Your task to perform on an android device: Open Google Image 0: 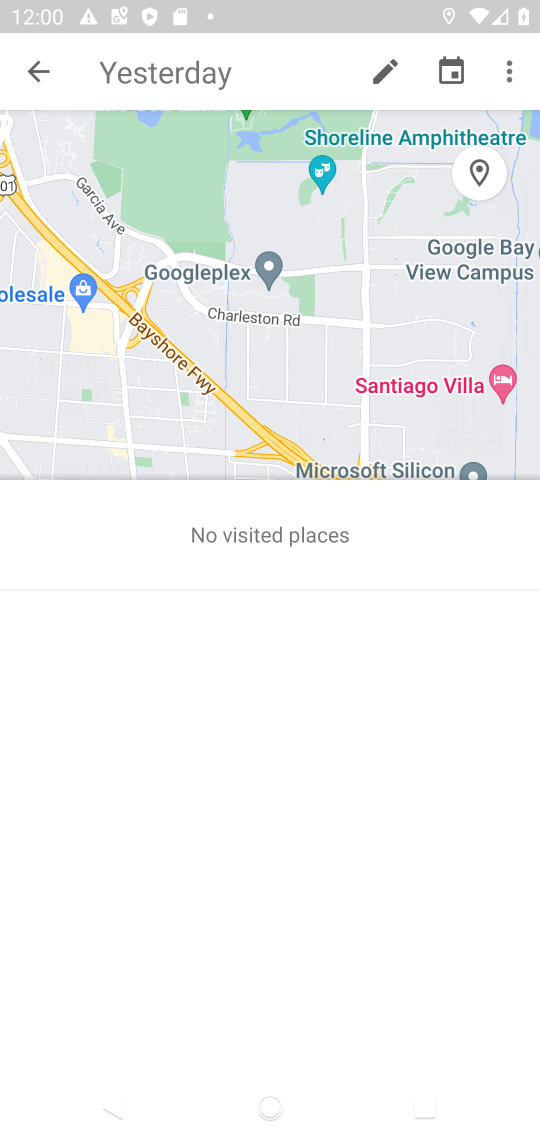
Step 0: press home button
Your task to perform on an android device: Open Google Image 1: 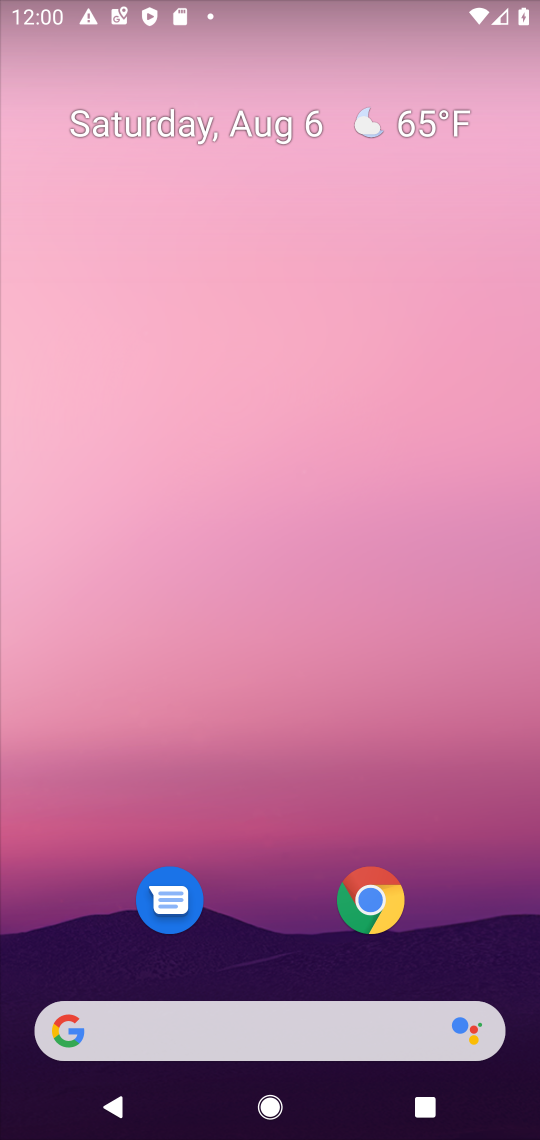
Step 1: drag from (267, 709) to (262, 188)
Your task to perform on an android device: Open Google Image 2: 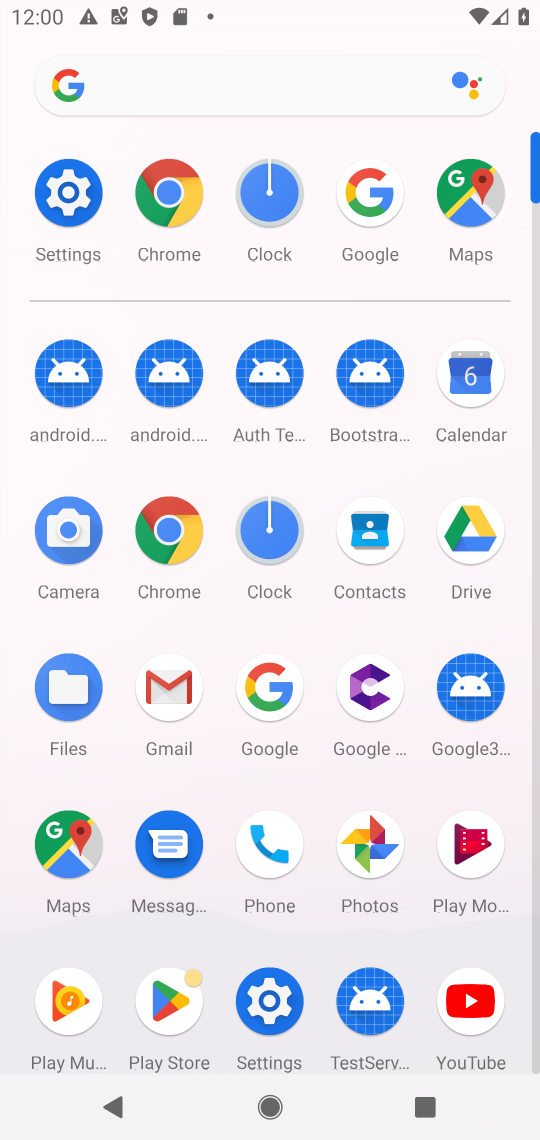
Step 2: click (267, 686)
Your task to perform on an android device: Open Google Image 3: 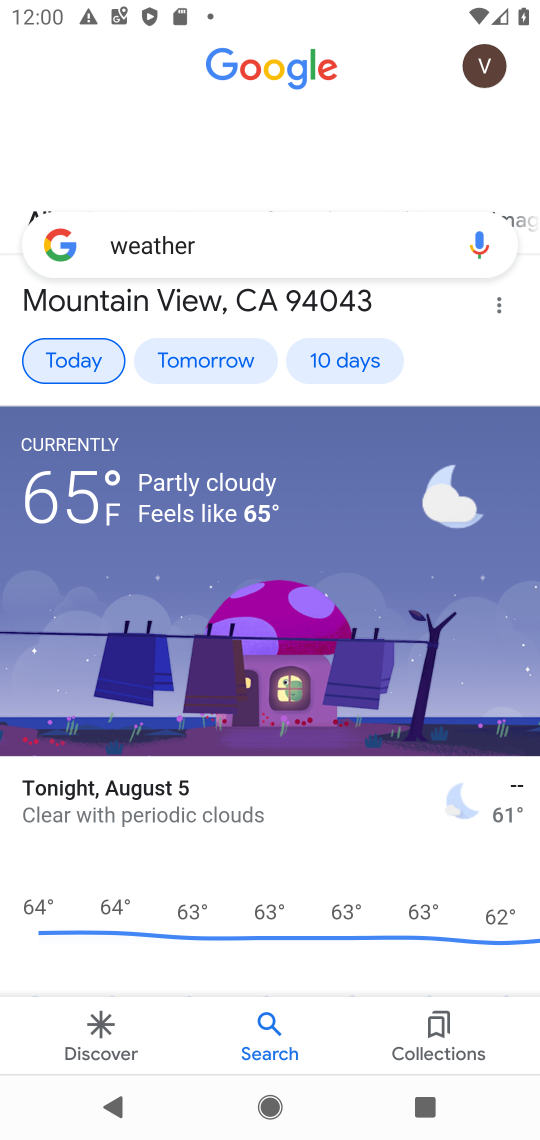
Step 3: task complete